Your task to perform on an android device: add a contact Image 0: 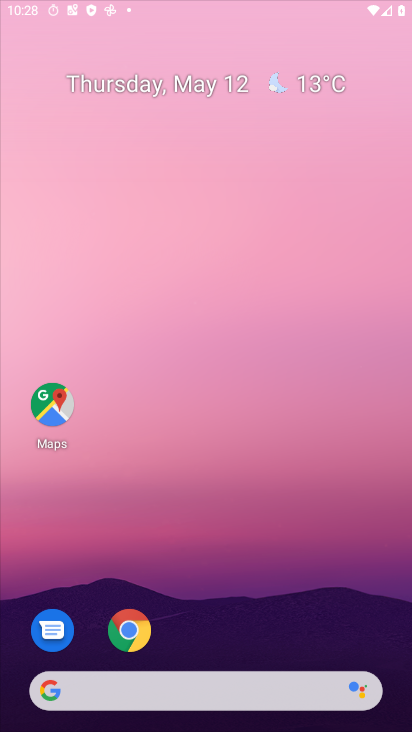
Step 0: click (183, 154)
Your task to perform on an android device: add a contact Image 1: 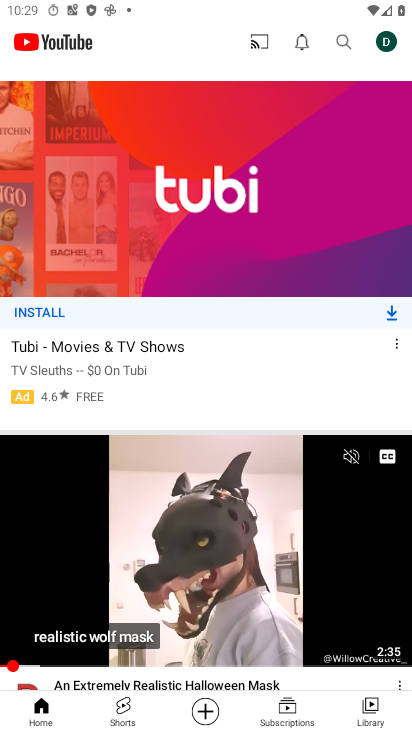
Step 1: press home button
Your task to perform on an android device: add a contact Image 2: 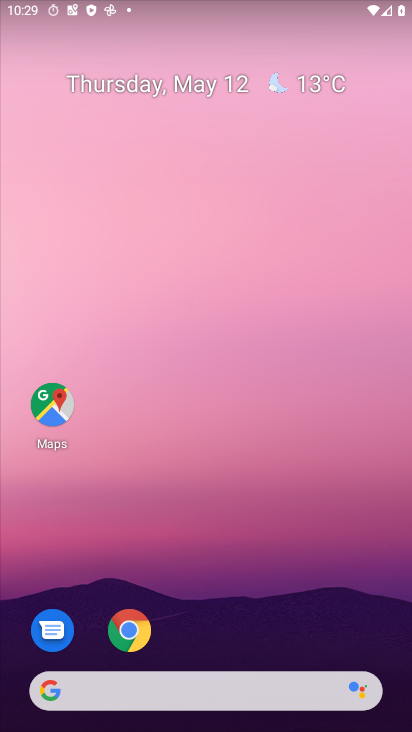
Step 2: drag from (193, 674) to (157, 23)
Your task to perform on an android device: add a contact Image 3: 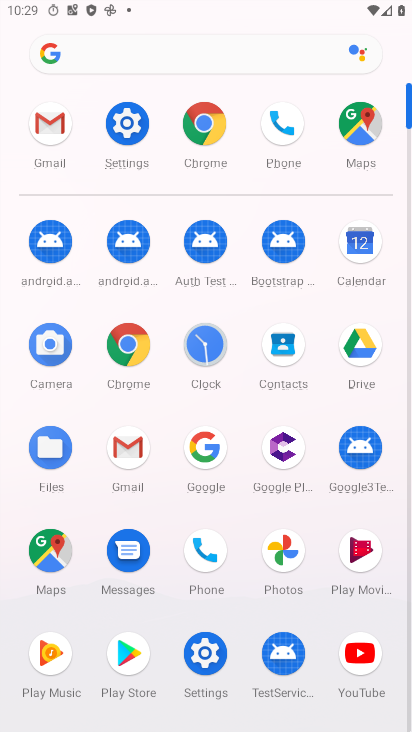
Step 3: click (278, 359)
Your task to perform on an android device: add a contact Image 4: 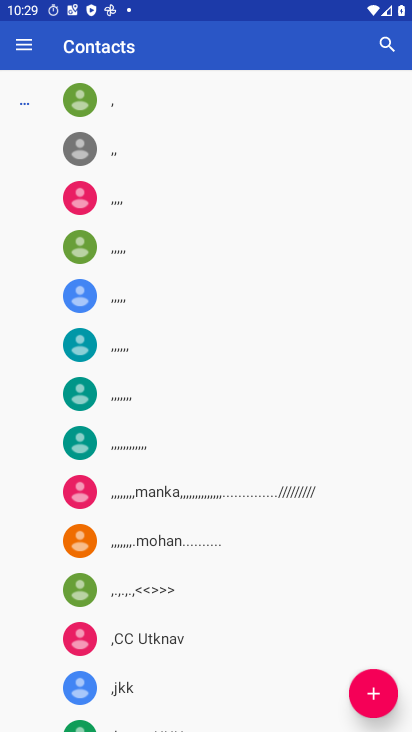
Step 4: click (353, 691)
Your task to perform on an android device: add a contact Image 5: 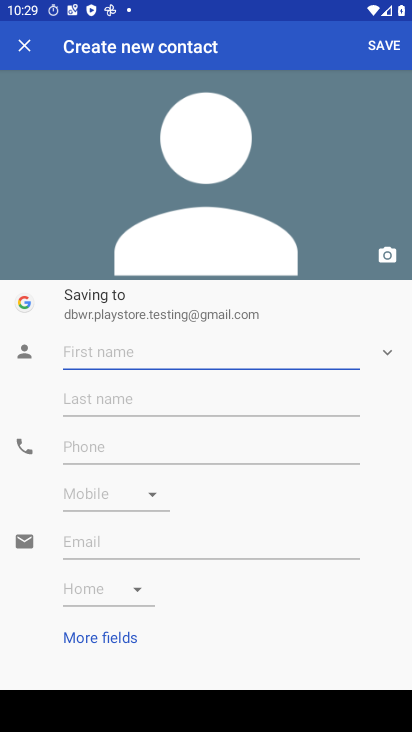
Step 5: type "hfkshf"
Your task to perform on an android device: add a contact Image 6: 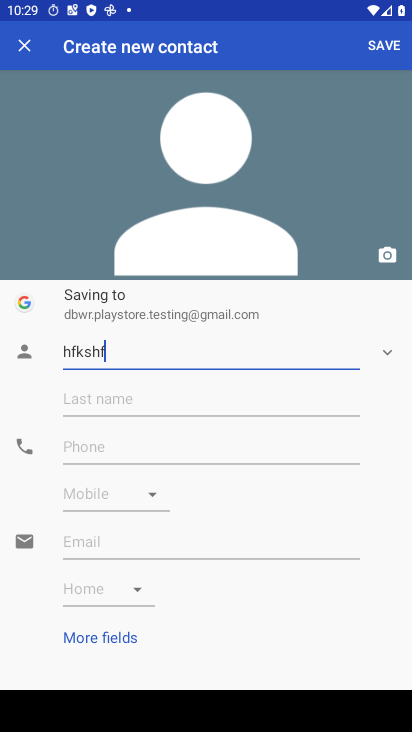
Step 6: click (100, 435)
Your task to perform on an android device: add a contact Image 7: 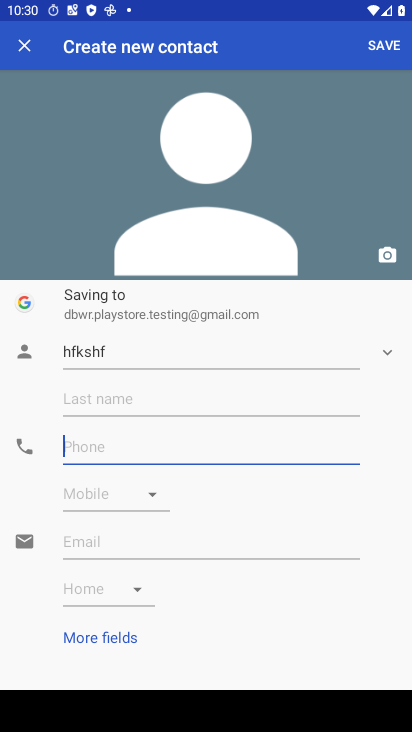
Step 7: type "6786878897"
Your task to perform on an android device: add a contact Image 8: 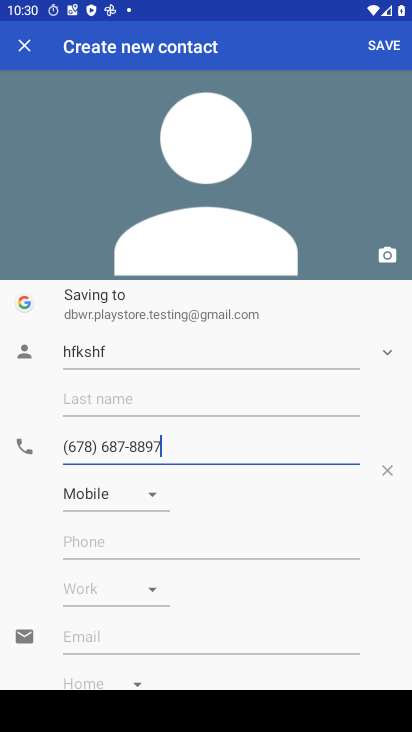
Step 8: click (369, 39)
Your task to perform on an android device: add a contact Image 9: 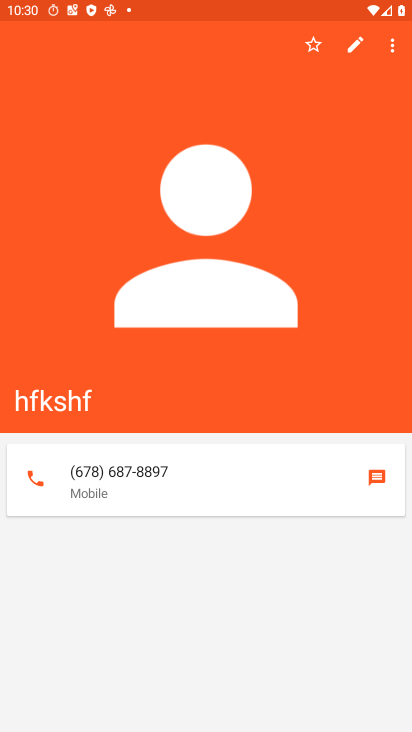
Step 9: task complete